Your task to perform on an android device: turn on showing notifications on the lock screen Image 0: 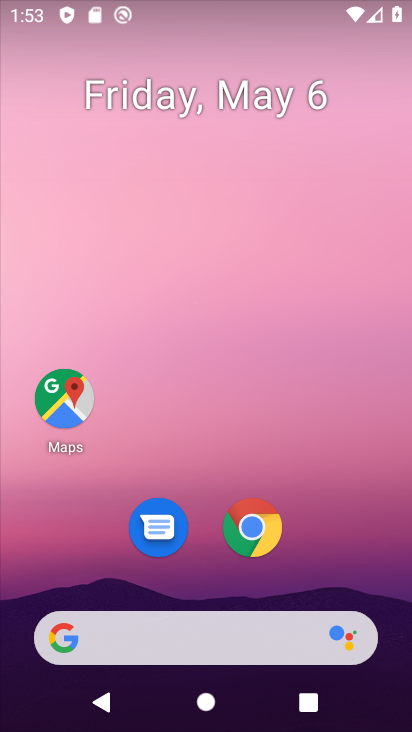
Step 0: drag from (328, 554) to (353, 95)
Your task to perform on an android device: turn on showing notifications on the lock screen Image 1: 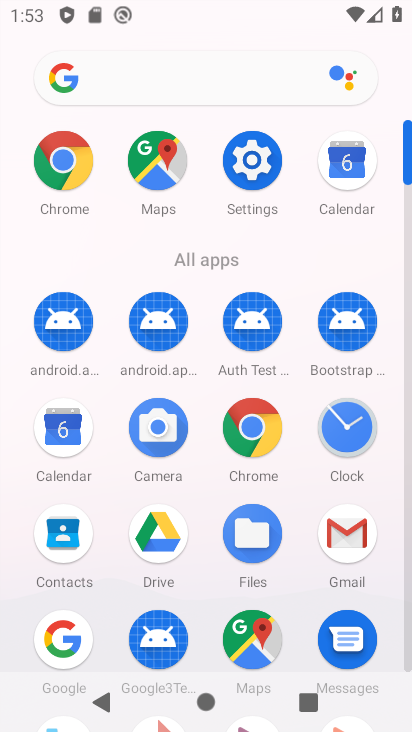
Step 1: click (234, 163)
Your task to perform on an android device: turn on showing notifications on the lock screen Image 2: 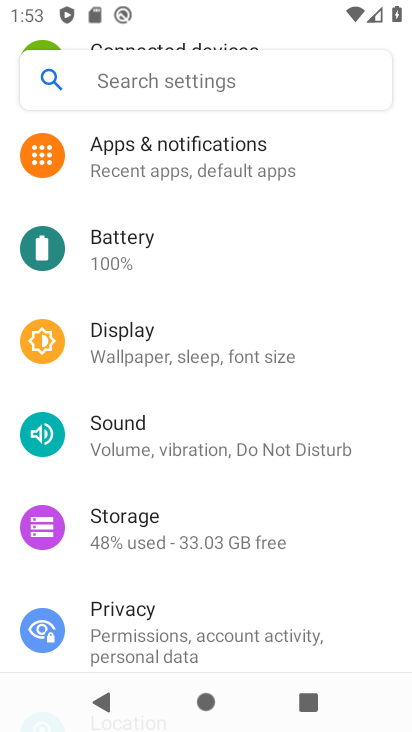
Step 2: click (235, 151)
Your task to perform on an android device: turn on showing notifications on the lock screen Image 3: 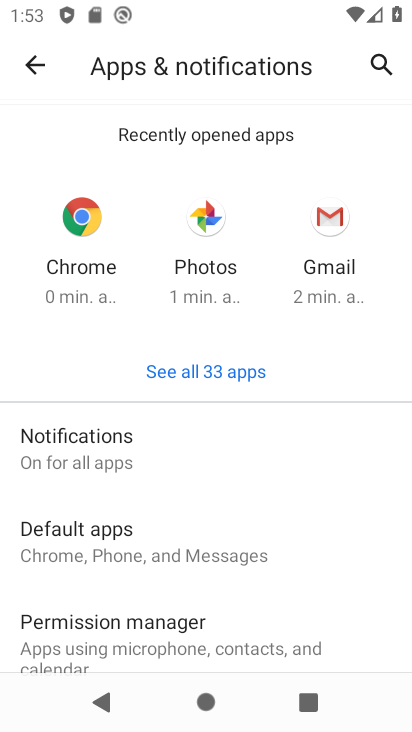
Step 3: click (74, 436)
Your task to perform on an android device: turn on showing notifications on the lock screen Image 4: 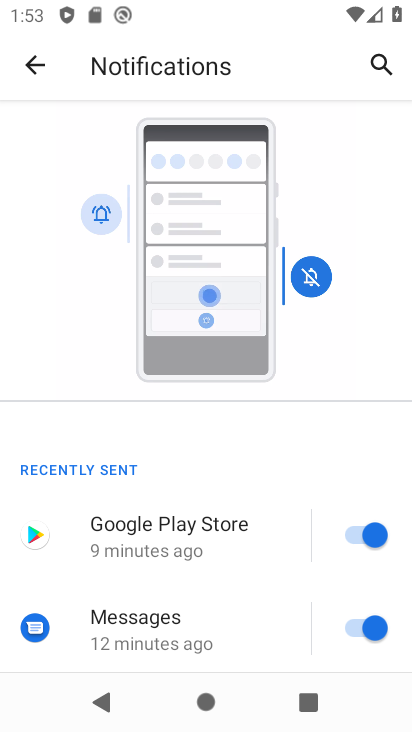
Step 4: drag from (259, 466) to (261, 132)
Your task to perform on an android device: turn on showing notifications on the lock screen Image 5: 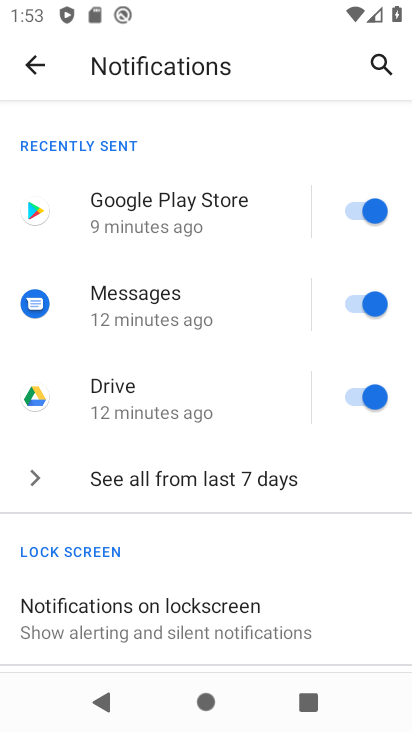
Step 5: click (100, 606)
Your task to perform on an android device: turn on showing notifications on the lock screen Image 6: 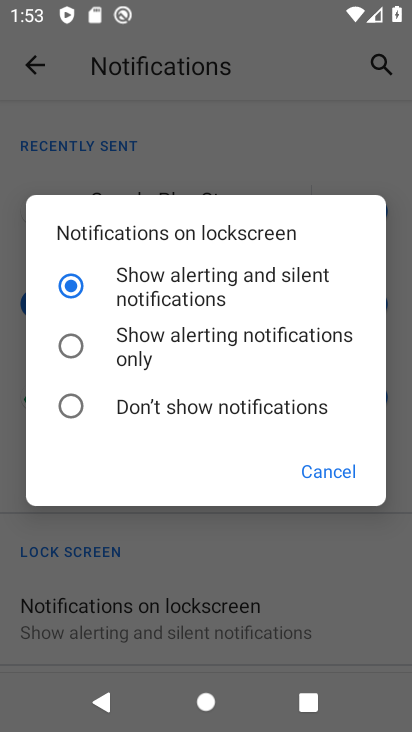
Step 6: click (126, 333)
Your task to perform on an android device: turn on showing notifications on the lock screen Image 7: 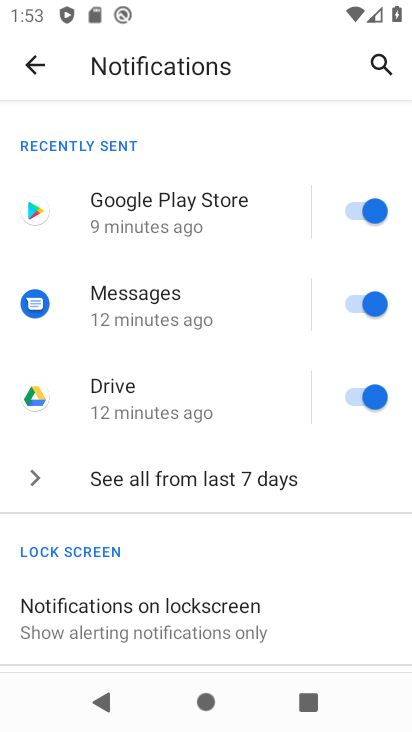
Step 7: task complete